Your task to perform on an android device: turn off improve location accuracy Image 0: 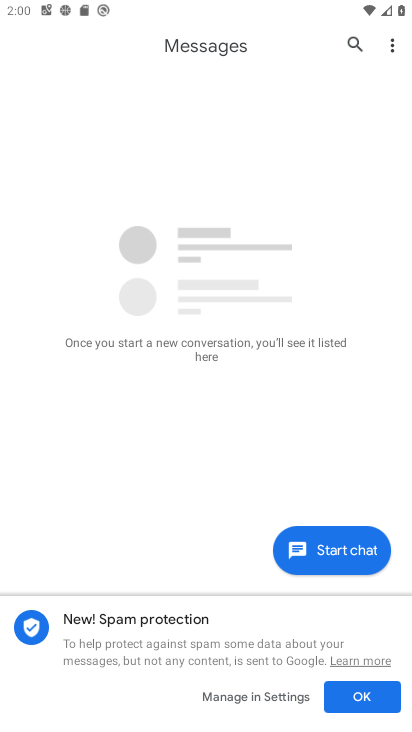
Step 0: press home button
Your task to perform on an android device: turn off improve location accuracy Image 1: 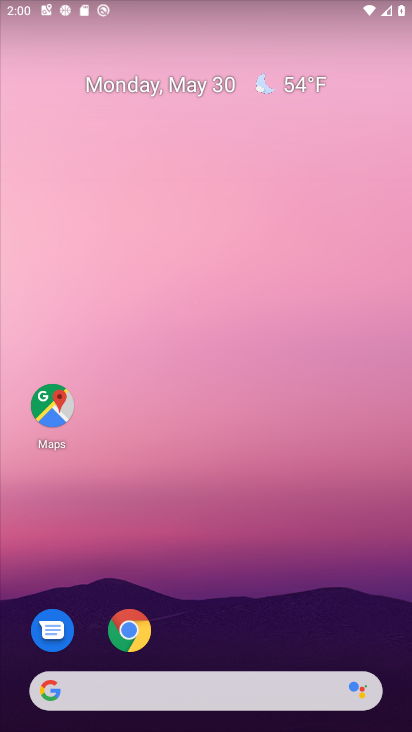
Step 1: drag from (150, 684) to (265, 59)
Your task to perform on an android device: turn off improve location accuracy Image 2: 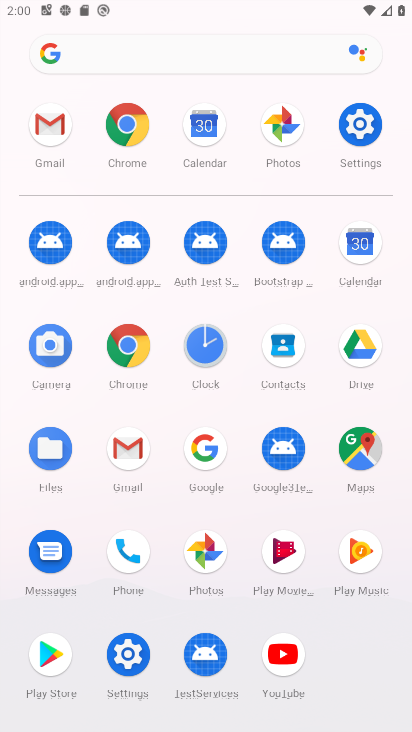
Step 2: click (353, 133)
Your task to perform on an android device: turn off improve location accuracy Image 3: 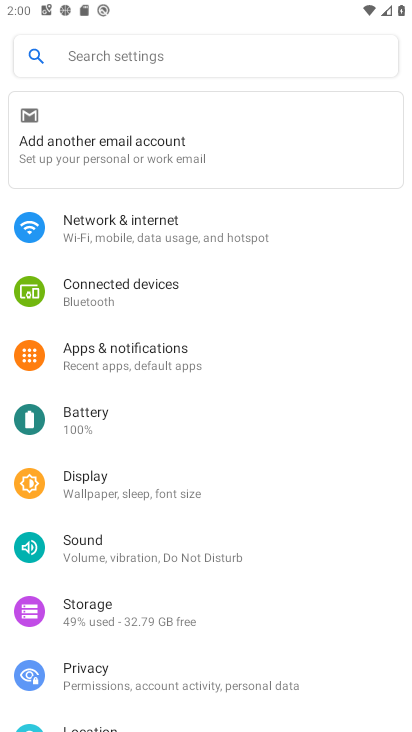
Step 3: drag from (181, 557) to (324, 154)
Your task to perform on an android device: turn off improve location accuracy Image 4: 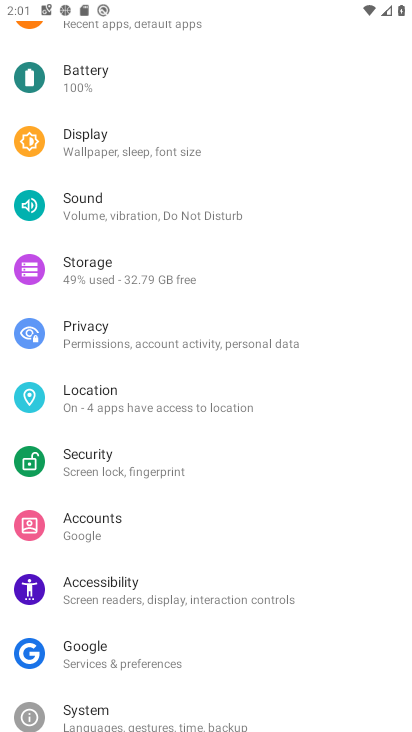
Step 4: click (133, 398)
Your task to perform on an android device: turn off improve location accuracy Image 5: 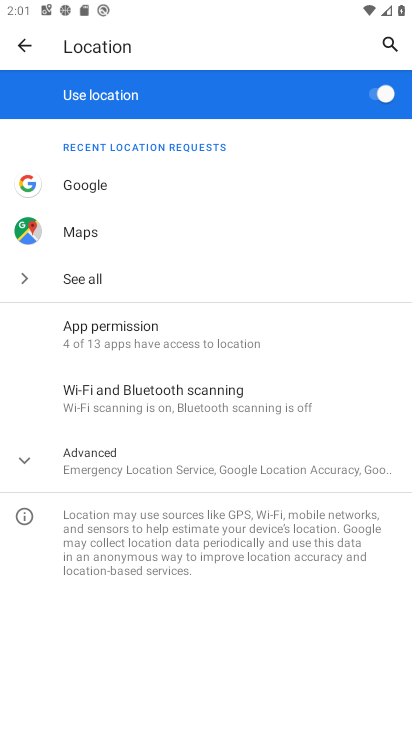
Step 5: click (98, 468)
Your task to perform on an android device: turn off improve location accuracy Image 6: 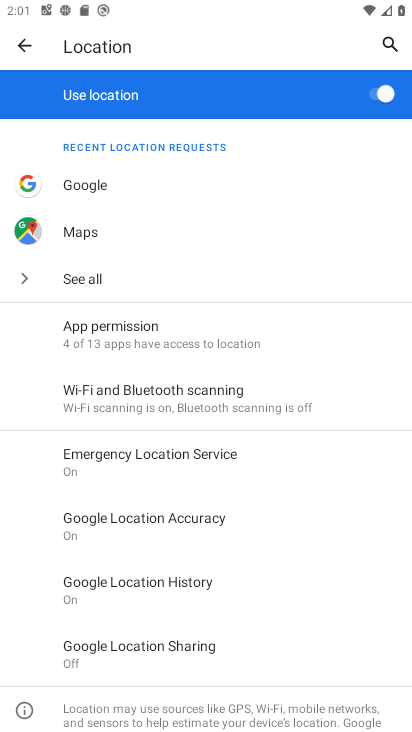
Step 6: click (138, 528)
Your task to perform on an android device: turn off improve location accuracy Image 7: 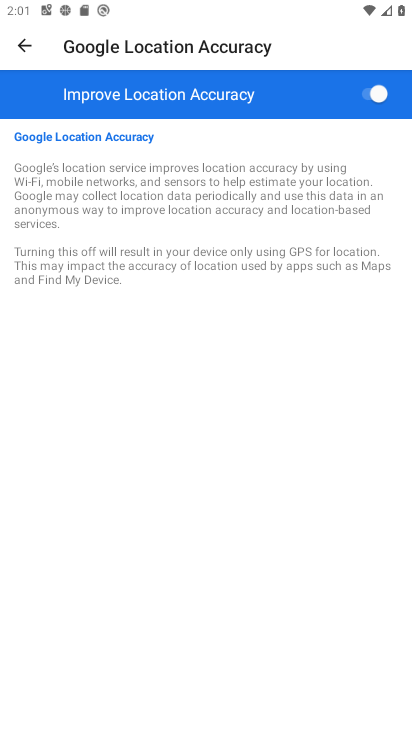
Step 7: click (366, 97)
Your task to perform on an android device: turn off improve location accuracy Image 8: 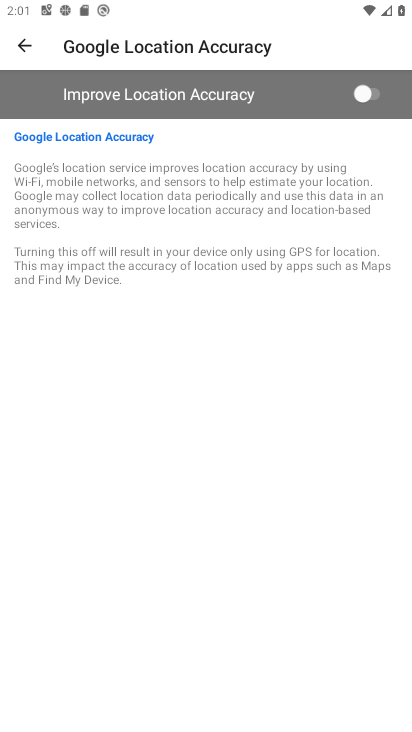
Step 8: task complete